Your task to perform on an android device: What is the recent news? Image 0: 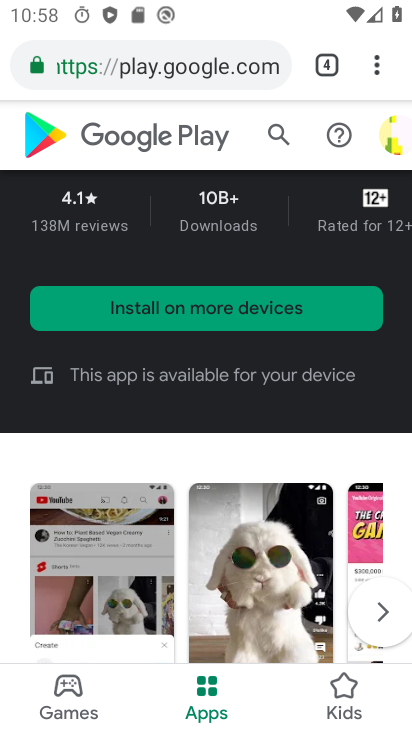
Step 0: press back button
Your task to perform on an android device: What is the recent news? Image 1: 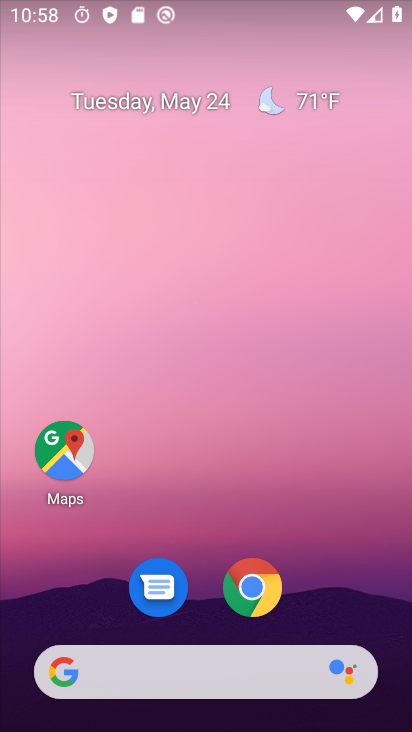
Step 1: drag from (276, 423) to (152, 95)
Your task to perform on an android device: What is the recent news? Image 2: 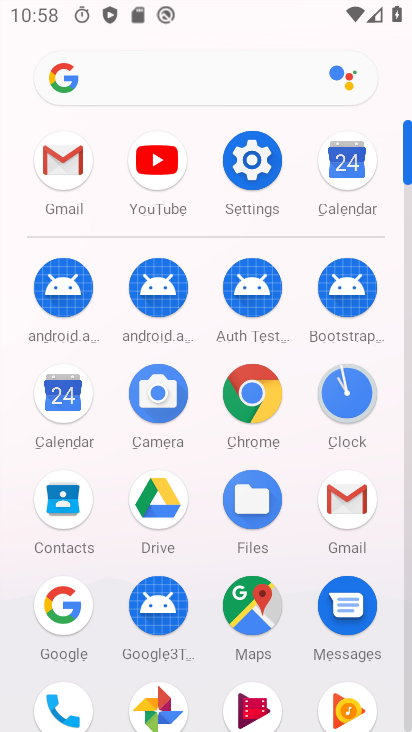
Step 2: press home button
Your task to perform on an android device: What is the recent news? Image 3: 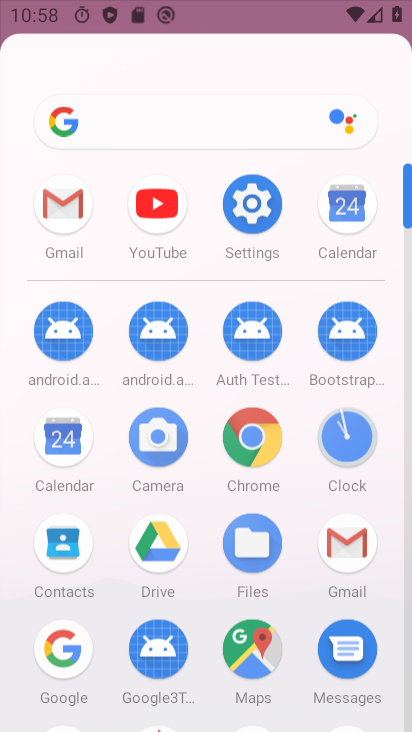
Step 3: press home button
Your task to perform on an android device: What is the recent news? Image 4: 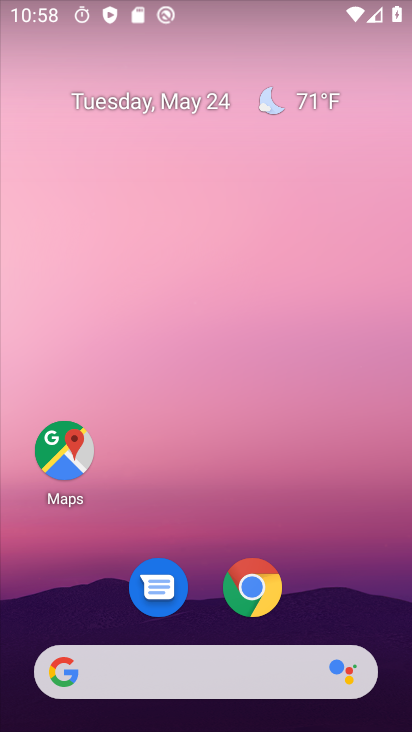
Step 4: press home button
Your task to perform on an android device: What is the recent news? Image 5: 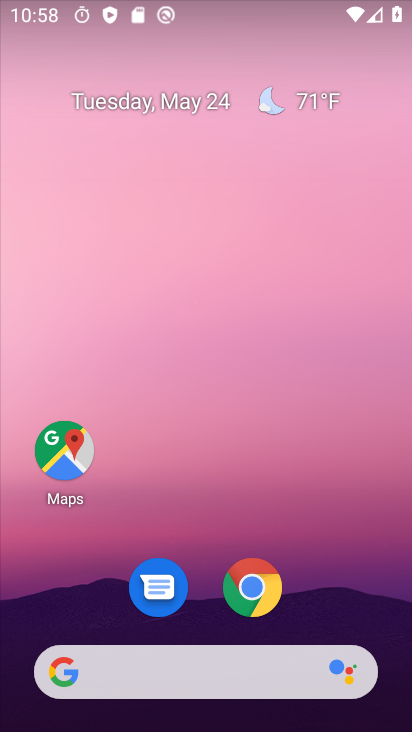
Step 5: drag from (39, 196) to (356, 181)
Your task to perform on an android device: What is the recent news? Image 6: 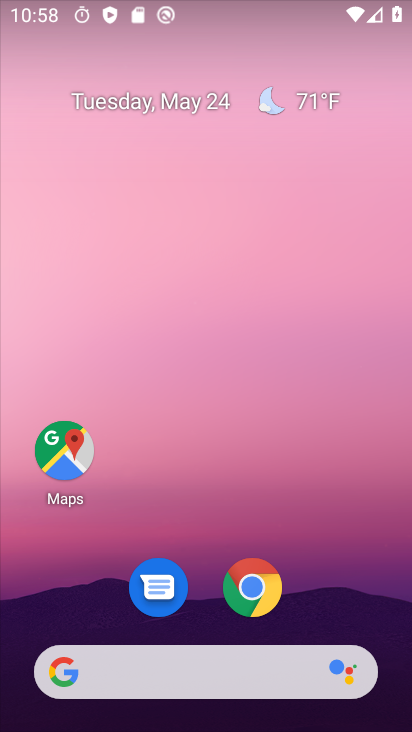
Step 6: drag from (63, 221) to (342, 340)
Your task to perform on an android device: What is the recent news? Image 7: 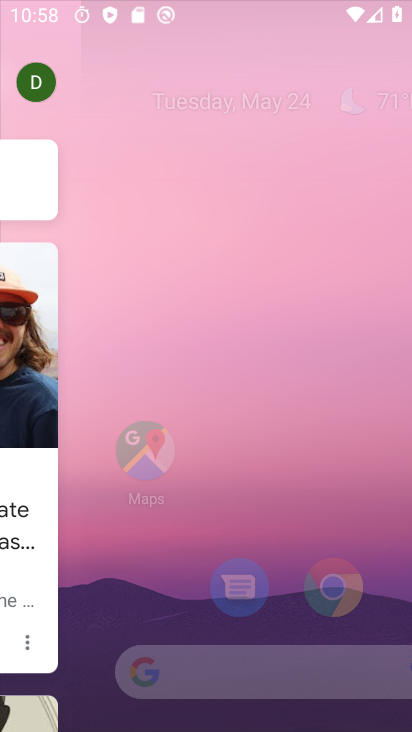
Step 7: drag from (58, 248) to (376, 373)
Your task to perform on an android device: What is the recent news? Image 8: 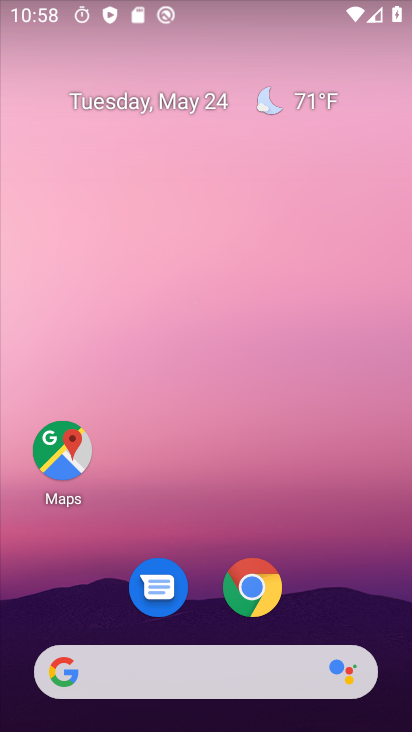
Step 8: drag from (43, 209) to (400, 433)
Your task to perform on an android device: What is the recent news? Image 9: 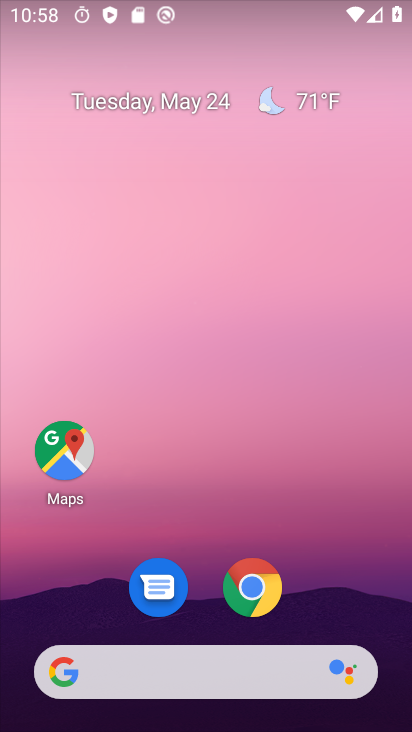
Step 9: drag from (32, 224) to (385, 392)
Your task to perform on an android device: What is the recent news? Image 10: 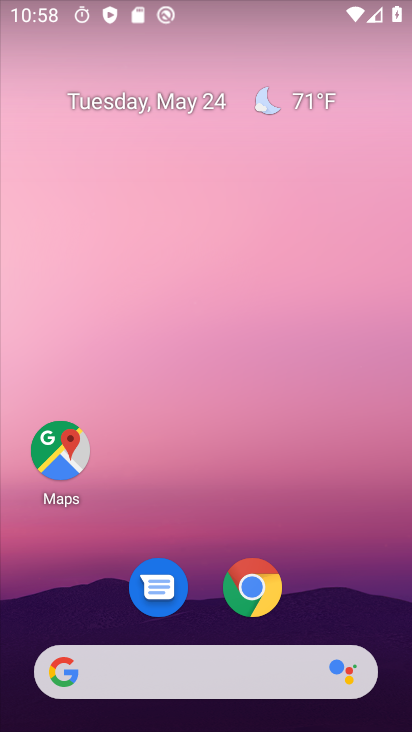
Step 10: drag from (44, 199) to (409, 344)
Your task to perform on an android device: What is the recent news? Image 11: 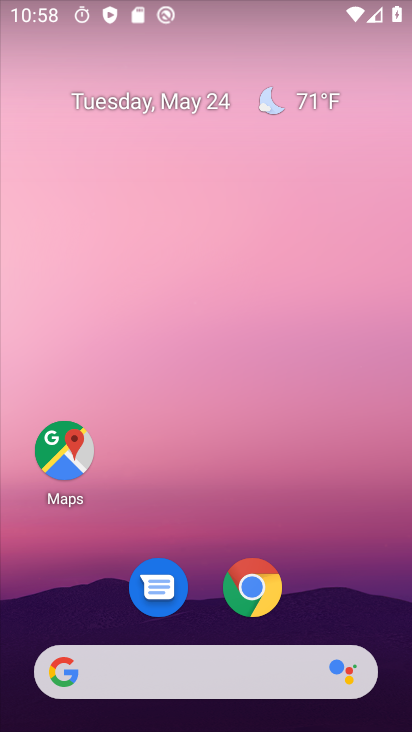
Step 11: drag from (12, 214) to (315, 246)
Your task to perform on an android device: What is the recent news? Image 12: 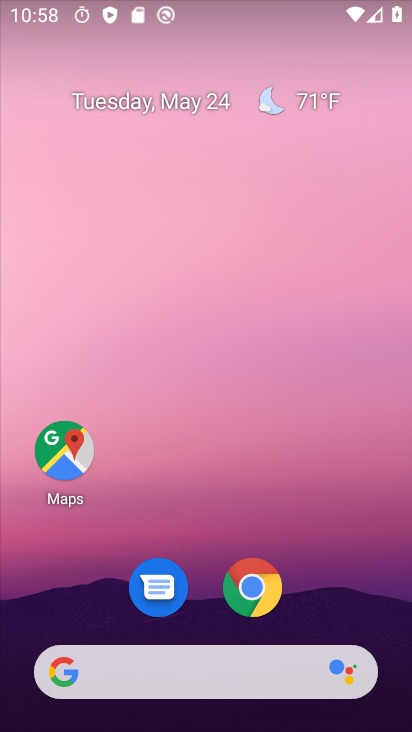
Step 12: drag from (25, 191) to (354, 349)
Your task to perform on an android device: What is the recent news? Image 13: 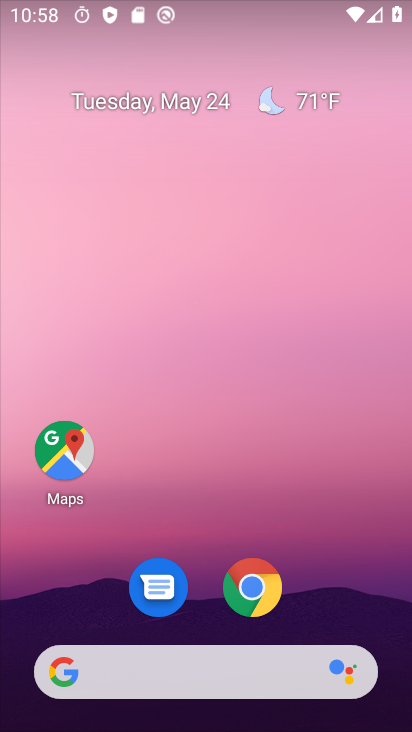
Step 13: drag from (85, 206) to (318, 206)
Your task to perform on an android device: What is the recent news? Image 14: 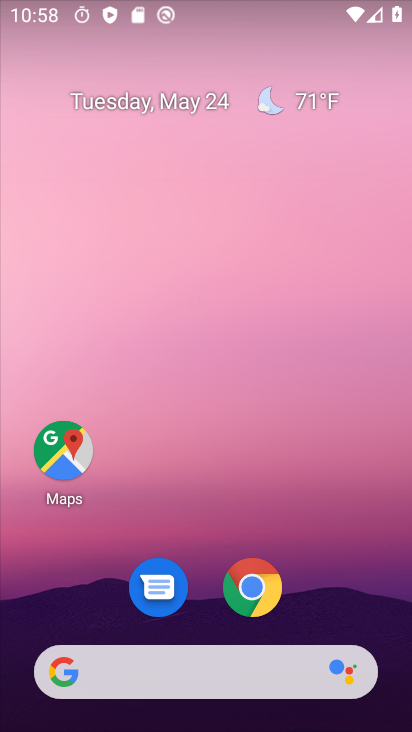
Step 14: drag from (1, 197) to (400, 330)
Your task to perform on an android device: What is the recent news? Image 15: 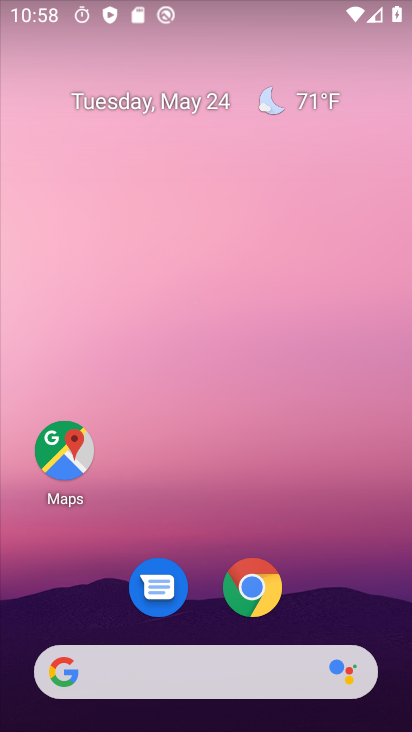
Step 15: drag from (40, 231) to (399, 394)
Your task to perform on an android device: What is the recent news? Image 16: 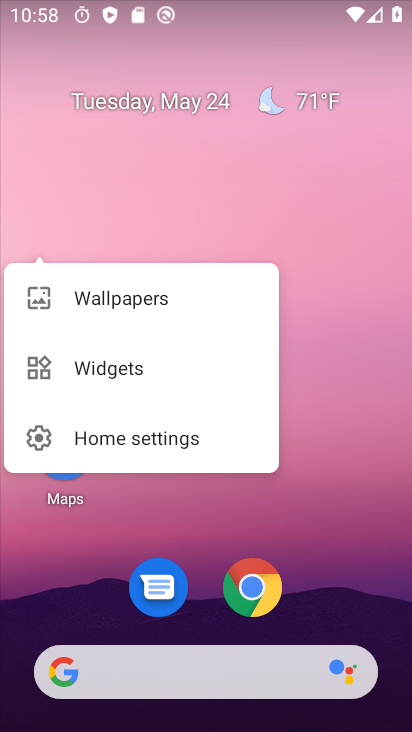
Step 16: click (244, 201)
Your task to perform on an android device: What is the recent news? Image 17: 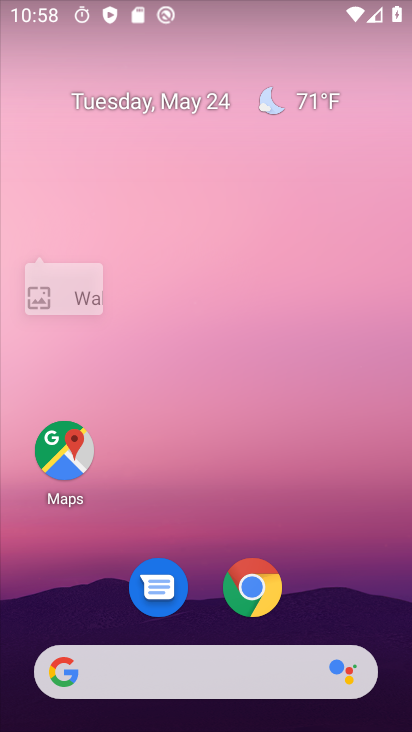
Step 17: click (244, 201)
Your task to perform on an android device: What is the recent news? Image 18: 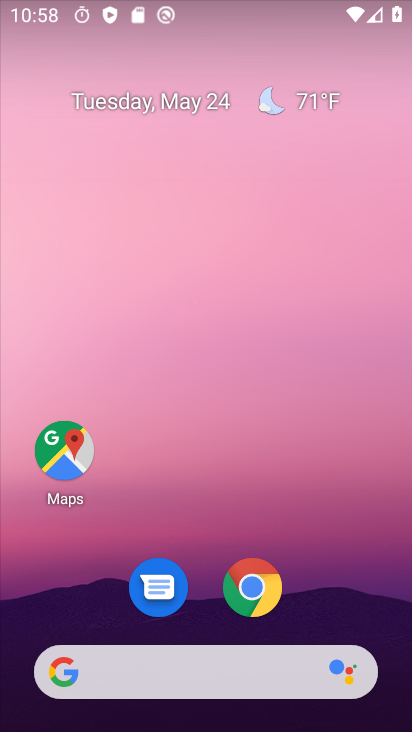
Step 18: click (244, 200)
Your task to perform on an android device: What is the recent news? Image 19: 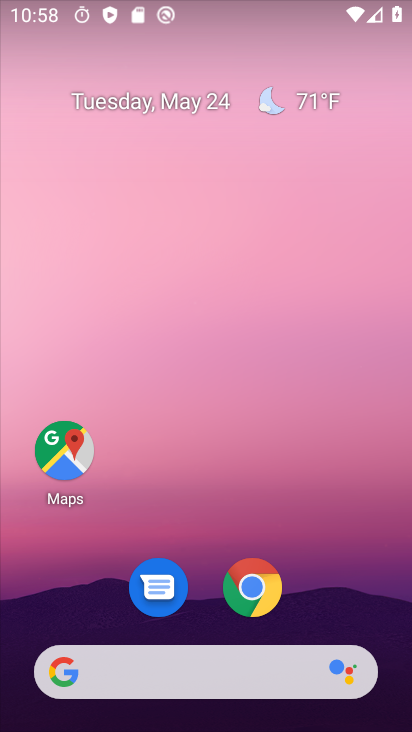
Step 19: click (244, 200)
Your task to perform on an android device: What is the recent news? Image 20: 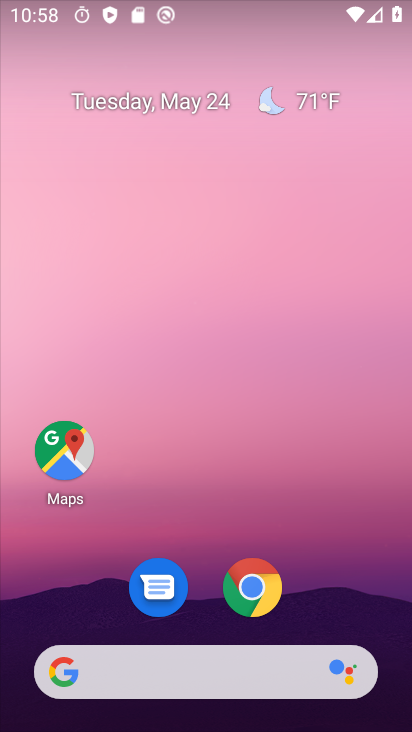
Step 20: drag from (4, 197) to (367, 383)
Your task to perform on an android device: What is the recent news? Image 21: 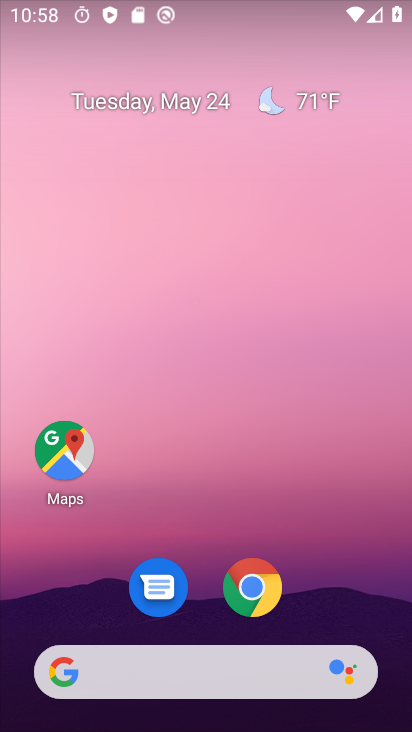
Step 21: click (359, 370)
Your task to perform on an android device: What is the recent news? Image 22: 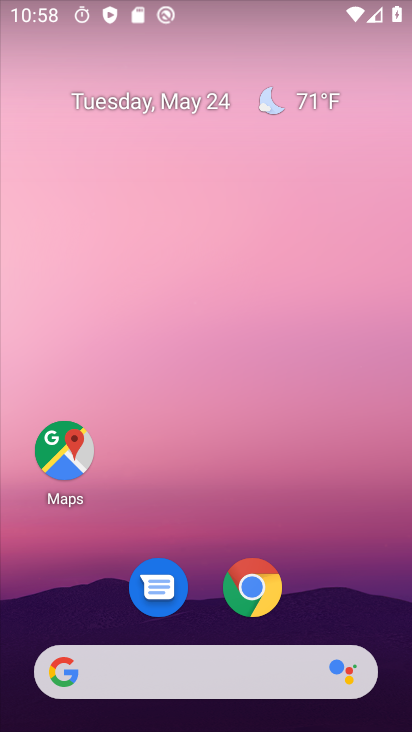
Step 22: task complete